Your task to perform on an android device: see tabs open on other devices in the chrome app Image 0: 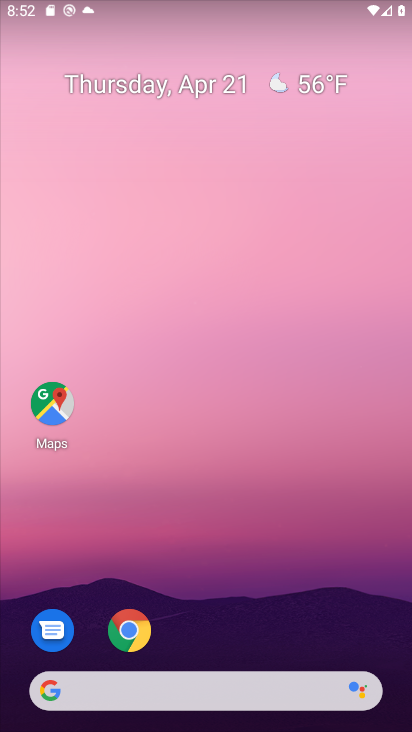
Step 0: drag from (223, 554) to (265, 4)
Your task to perform on an android device: see tabs open on other devices in the chrome app Image 1: 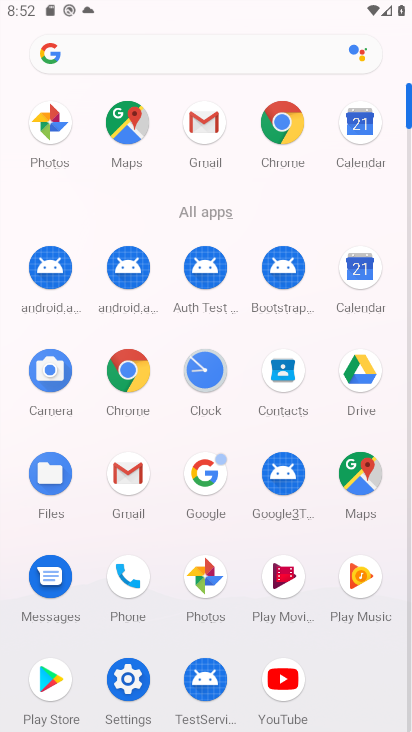
Step 1: click (105, 461)
Your task to perform on an android device: see tabs open on other devices in the chrome app Image 2: 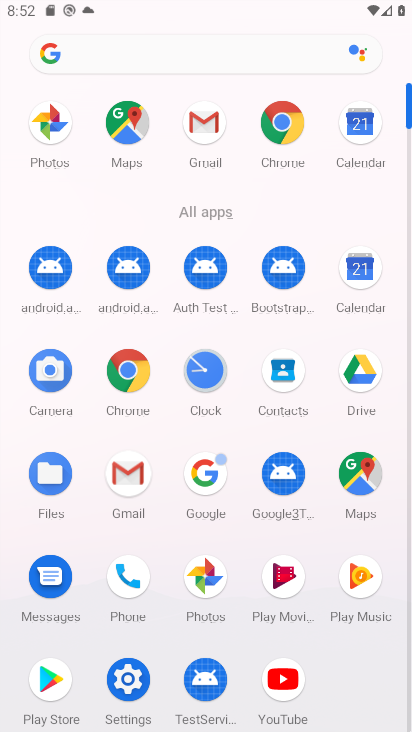
Step 2: click (120, 367)
Your task to perform on an android device: see tabs open on other devices in the chrome app Image 3: 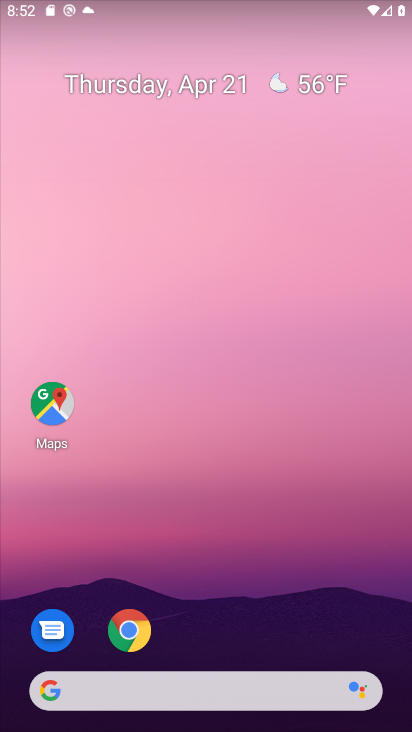
Step 3: drag from (200, 566) to (276, 18)
Your task to perform on an android device: see tabs open on other devices in the chrome app Image 4: 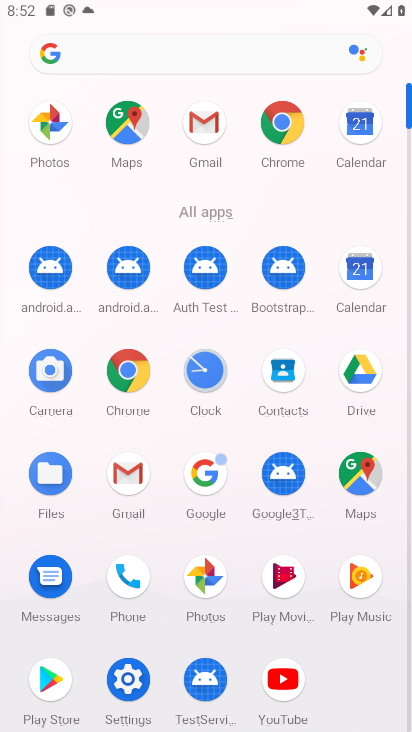
Step 4: click (117, 380)
Your task to perform on an android device: see tabs open on other devices in the chrome app Image 5: 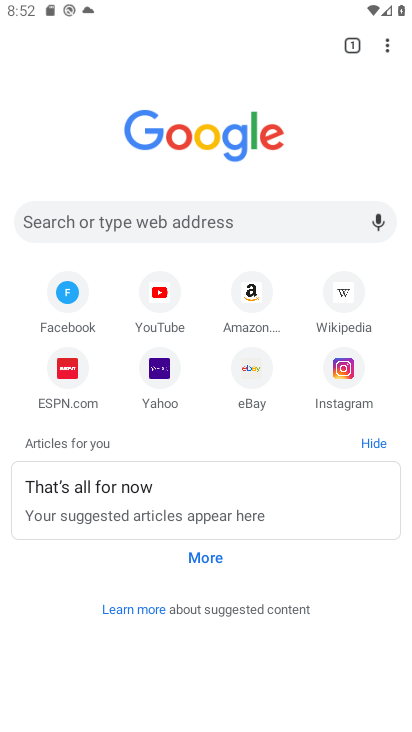
Step 5: click (386, 48)
Your task to perform on an android device: see tabs open on other devices in the chrome app Image 6: 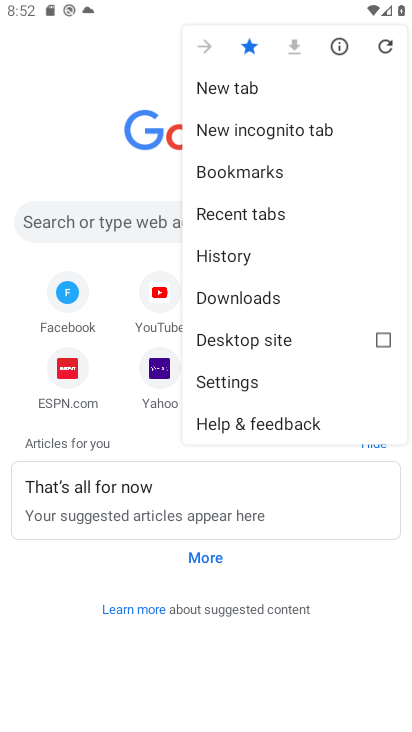
Step 6: click (246, 215)
Your task to perform on an android device: see tabs open on other devices in the chrome app Image 7: 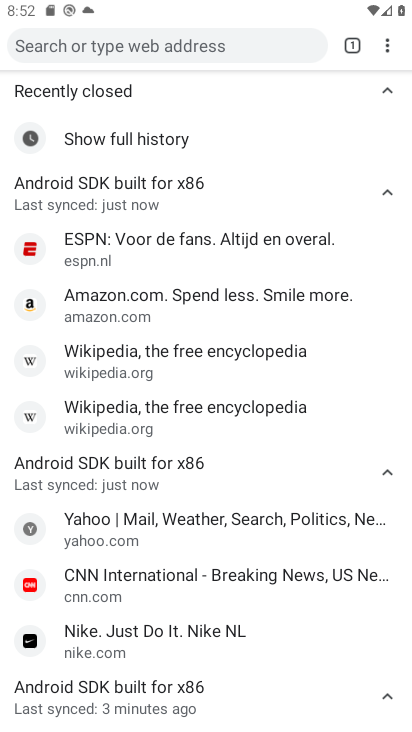
Step 7: task complete